Your task to perform on an android device: Open location settings Image 0: 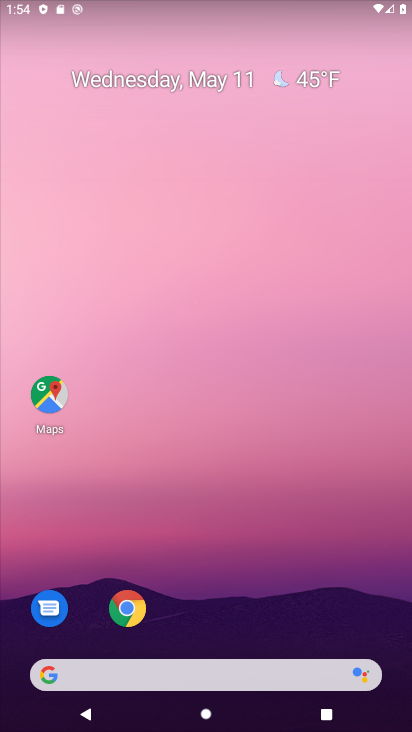
Step 0: drag from (227, 611) to (209, 175)
Your task to perform on an android device: Open location settings Image 1: 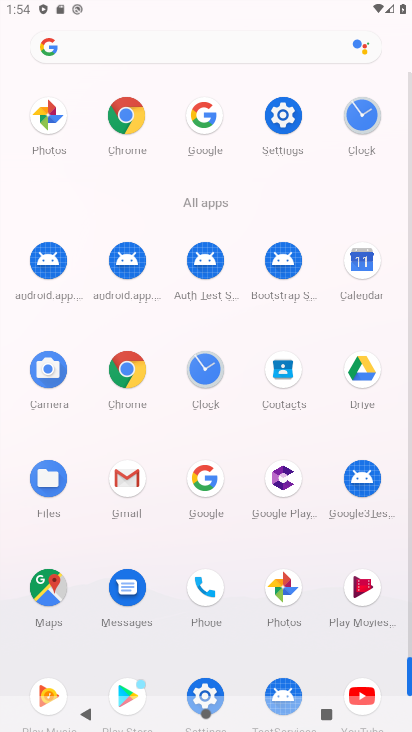
Step 1: click (287, 112)
Your task to perform on an android device: Open location settings Image 2: 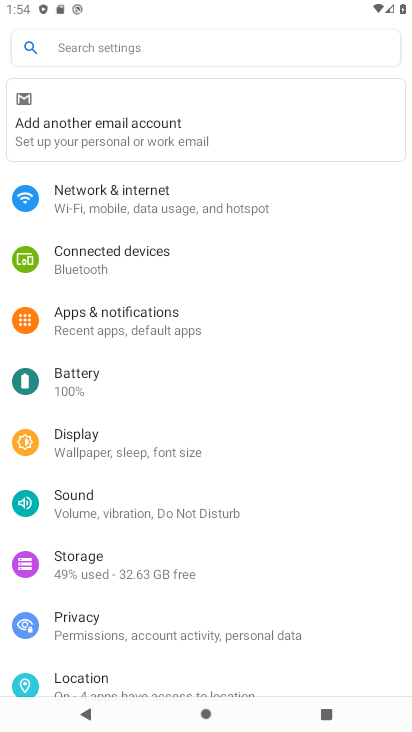
Step 2: click (94, 682)
Your task to perform on an android device: Open location settings Image 3: 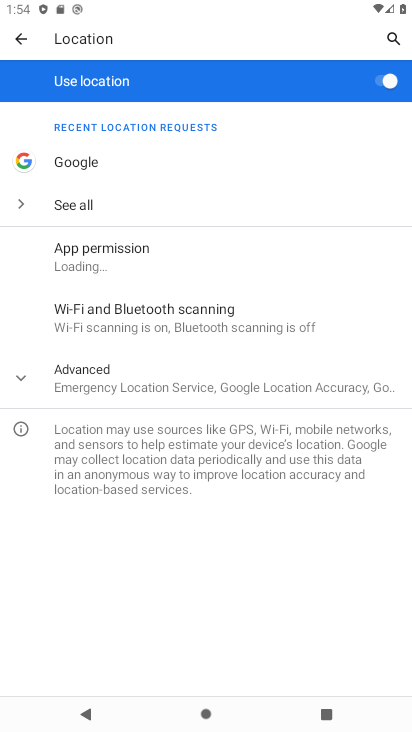
Step 3: task complete